Your task to perform on an android device: Open settings Image 0: 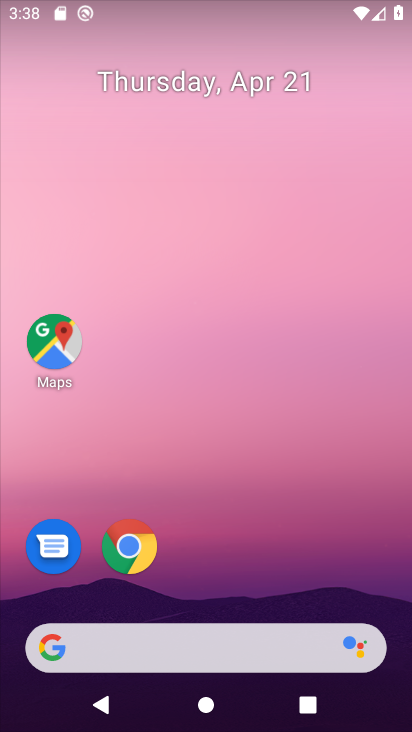
Step 0: drag from (186, 434) to (247, 5)
Your task to perform on an android device: Open settings Image 1: 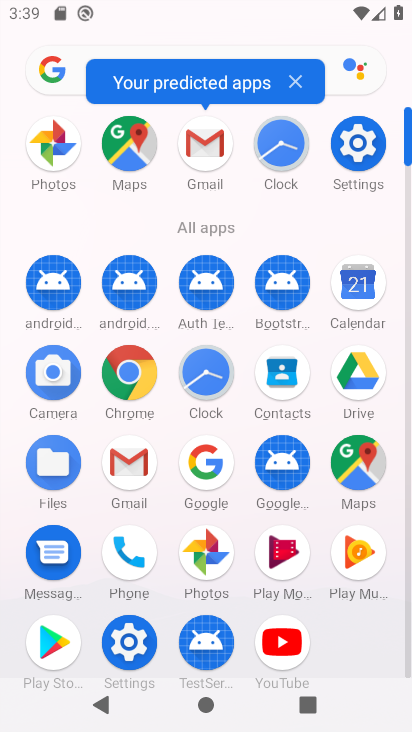
Step 1: click (379, 137)
Your task to perform on an android device: Open settings Image 2: 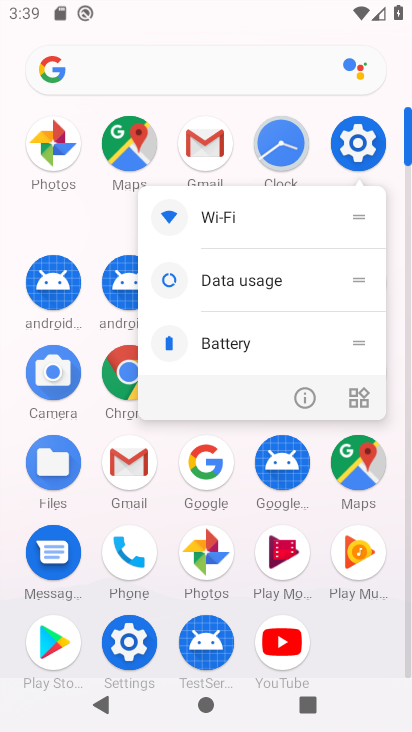
Step 2: click (308, 406)
Your task to perform on an android device: Open settings Image 3: 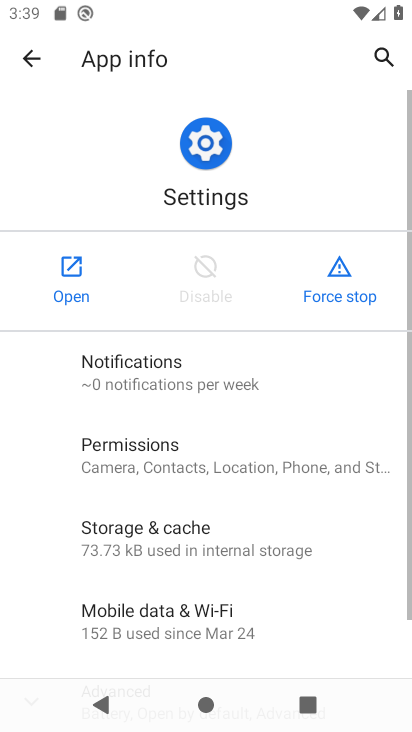
Step 3: click (91, 264)
Your task to perform on an android device: Open settings Image 4: 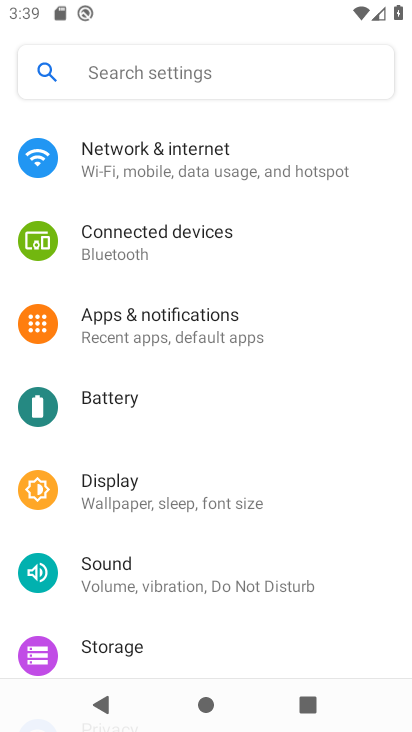
Step 4: click (67, 266)
Your task to perform on an android device: Open settings Image 5: 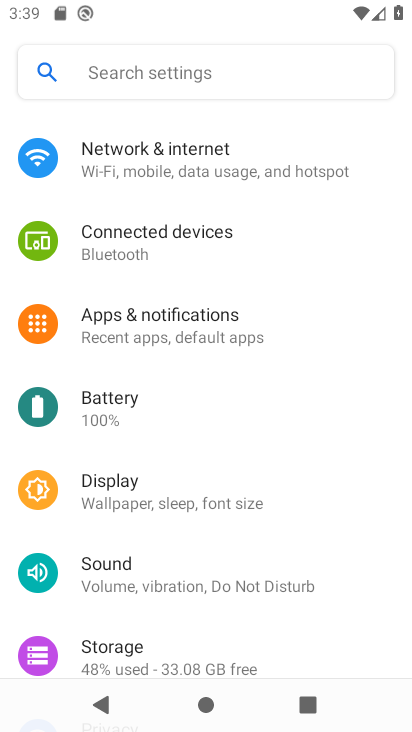
Step 5: task complete